Your task to perform on an android device: turn on translation in the chrome app Image 0: 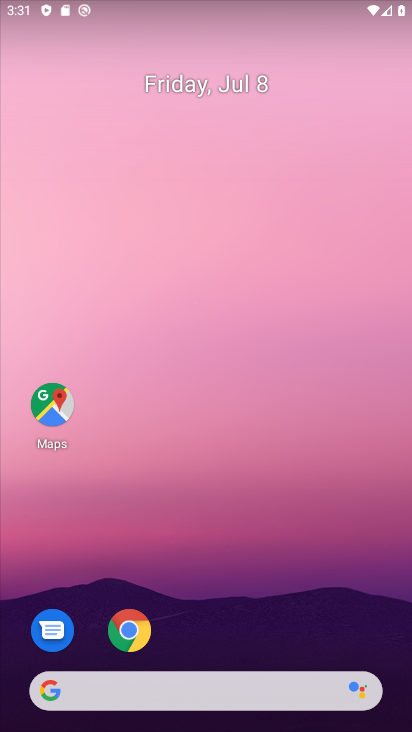
Step 0: click (131, 633)
Your task to perform on an android device: turn on translation in the chrome app Image 1: 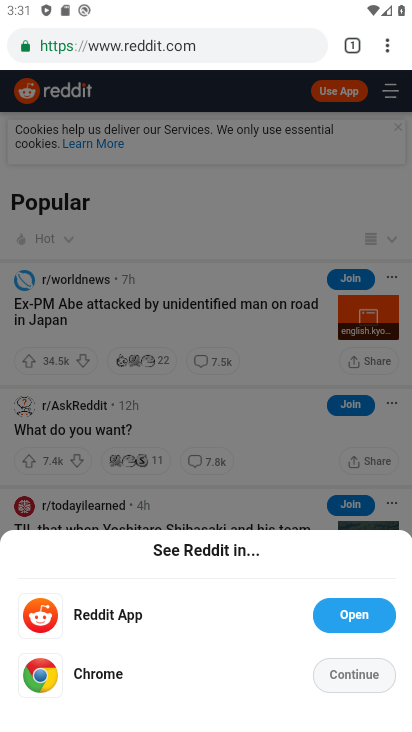
Step 1: click (387, 45)
Your task to perform on an android device: turn on translation in the chrome app Image 2: 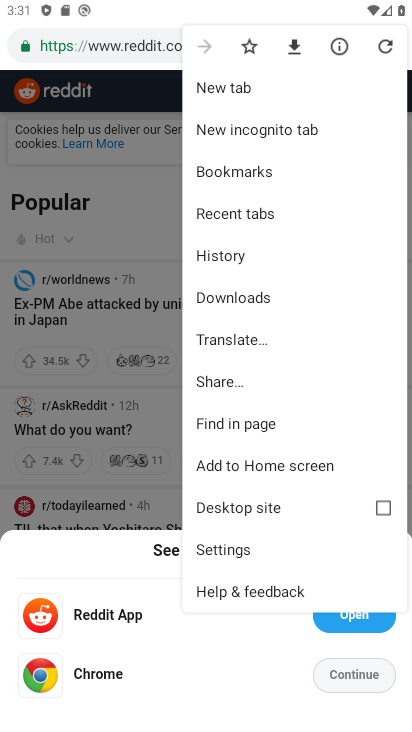
Step 2: click (246, 544)
Your task to perform on an android device: turn on translation in the chrome app Image 3: 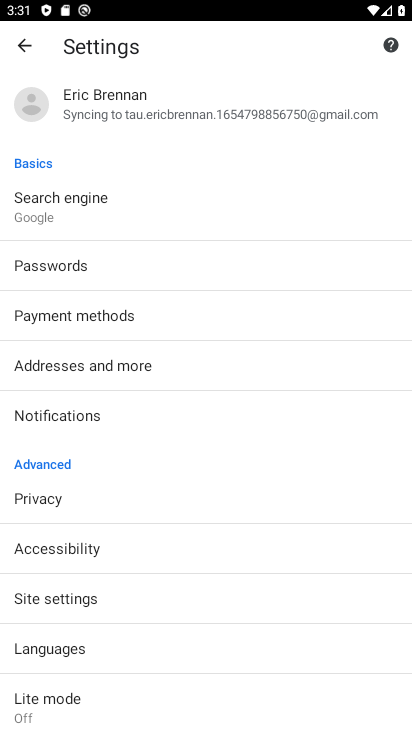
Step 3: click (103, 649)
Your task to perform on an android device: turn on translation in the chrome app Image 4: 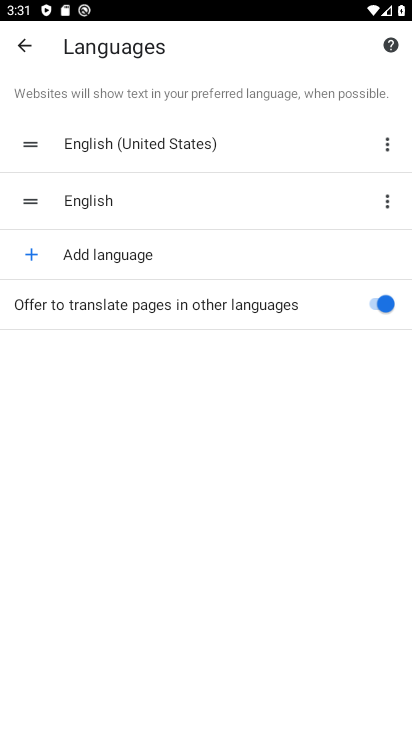
Step 4: task complete